Your task to perform on an android device: change the clock display to digital Image 0: 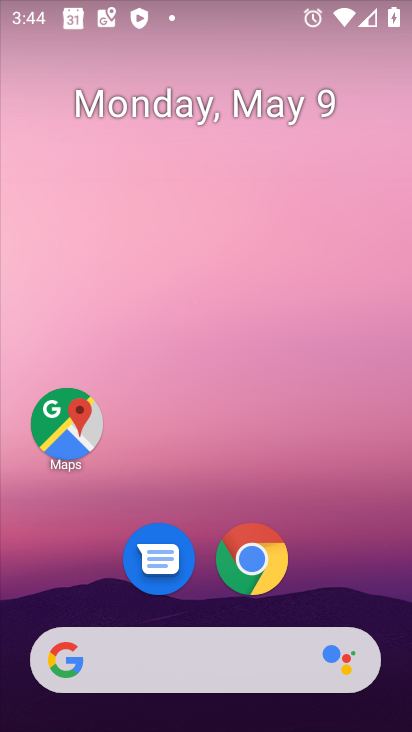
Step 0: drag from (212, 725) to (211, 292)
Your task to perform on an android device: change the clock display to digital Image 1: 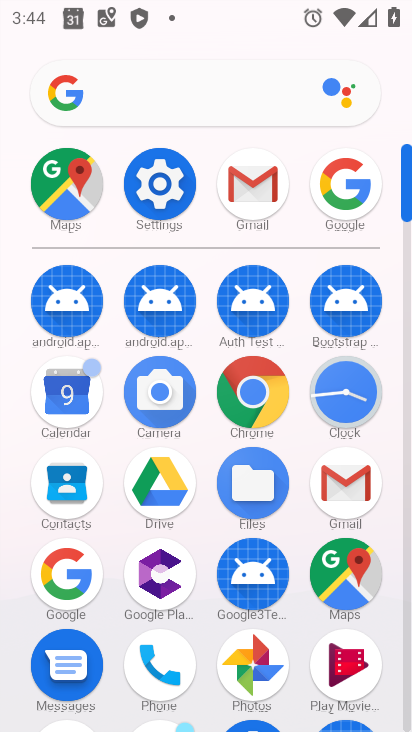
Step 1: click (348, 397)
Your task to perform on an android device: change the clock display to digital Image 2: 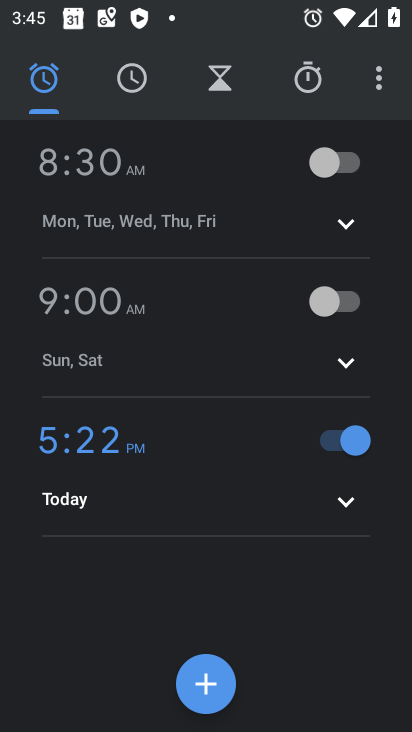
Step 2: click (380, 88)
Your task to perform on an android device: change the clock display to digital Image 3: 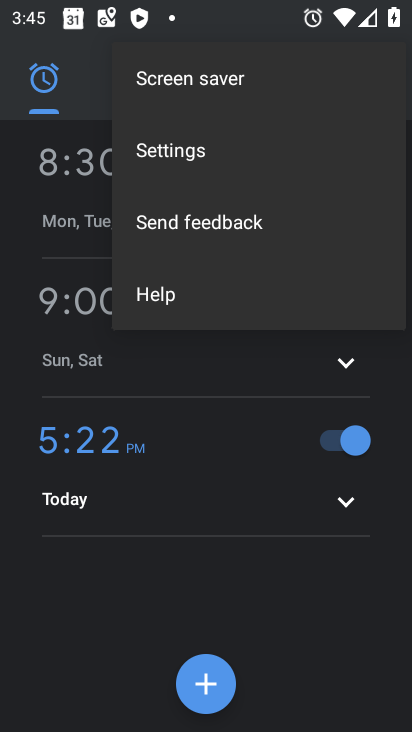
Step 3: click (157, 152)
Your task to perform on an android device: change the clock display to digital Image 4: 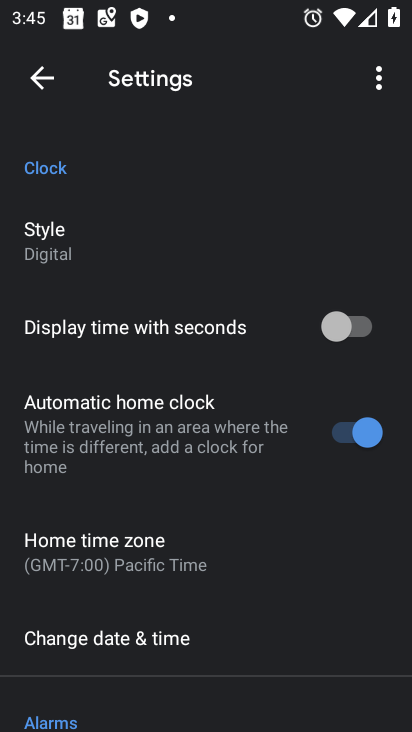
Step 4: drag from (251, 668) to (251, 598)
Your task to perform on an android device: change the clock display to digital Image 5: 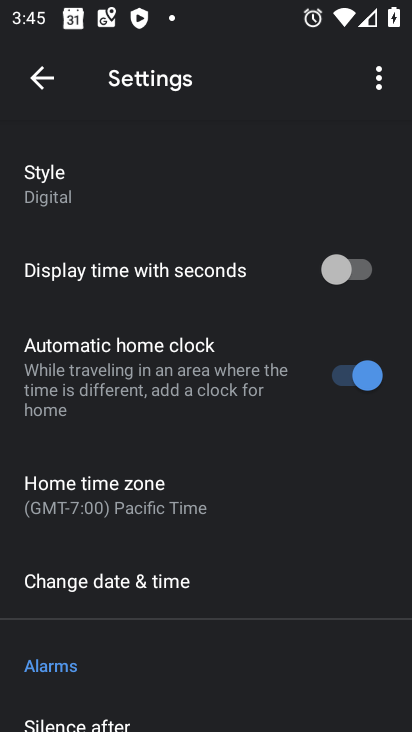
Step 5: click (360, 271)
Your task to perform on an android device: change the clock display to digital Image 6: 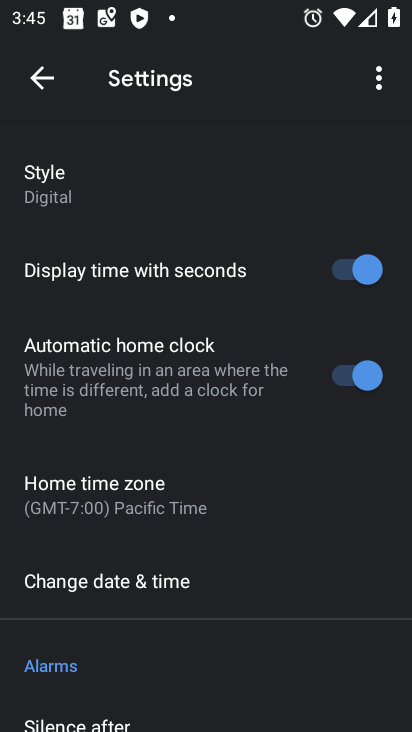
Step 6: task complete